Your task to perform on an android device: Turn on the flashlight Image 0: 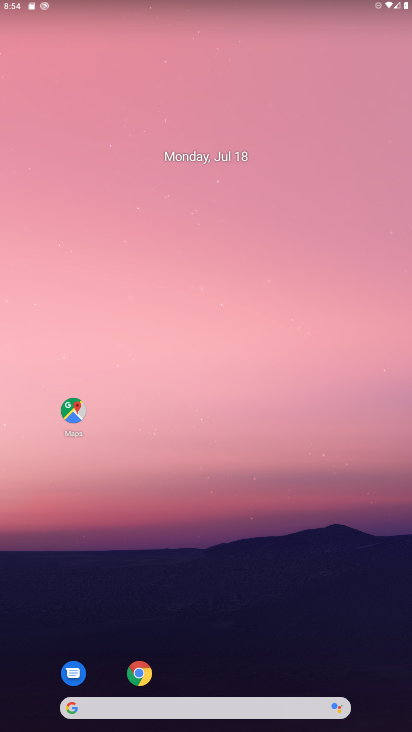
Step 0: press home button
Your task to perform on an android device: Turn on the flashlight Image 1: 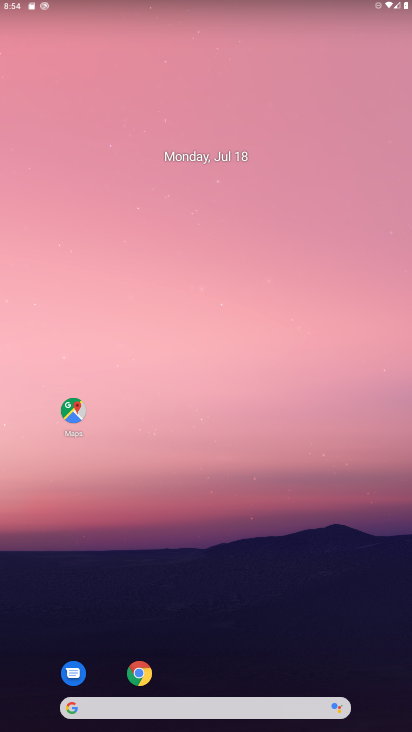
Step 1: task complete